Your task to perform on an android device: How big is the universe? Image 0: 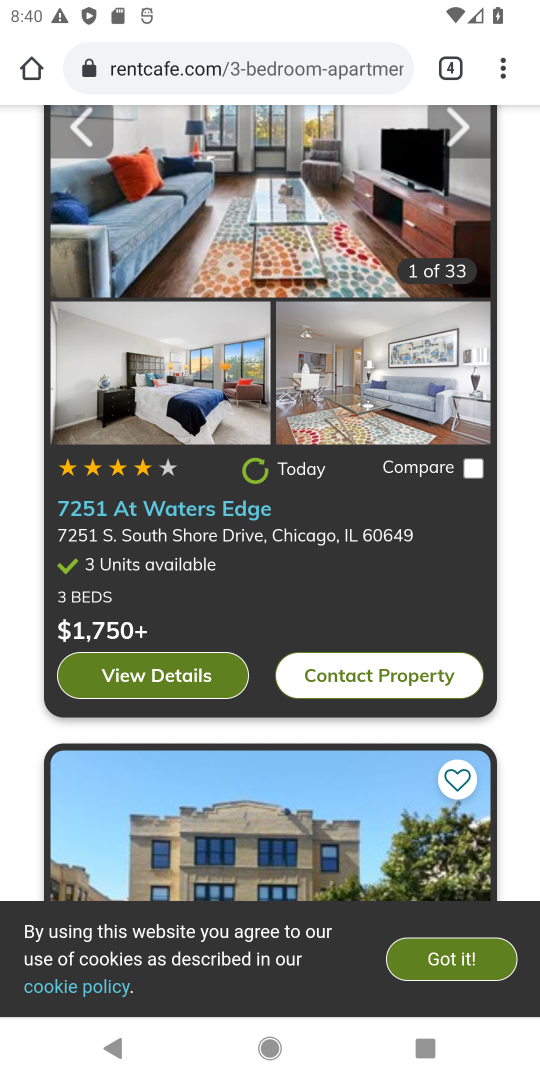
Step 0: drag from (505, 74) to (308, 148)
Your task to perform on an android device: How big is the universe? Image 1: 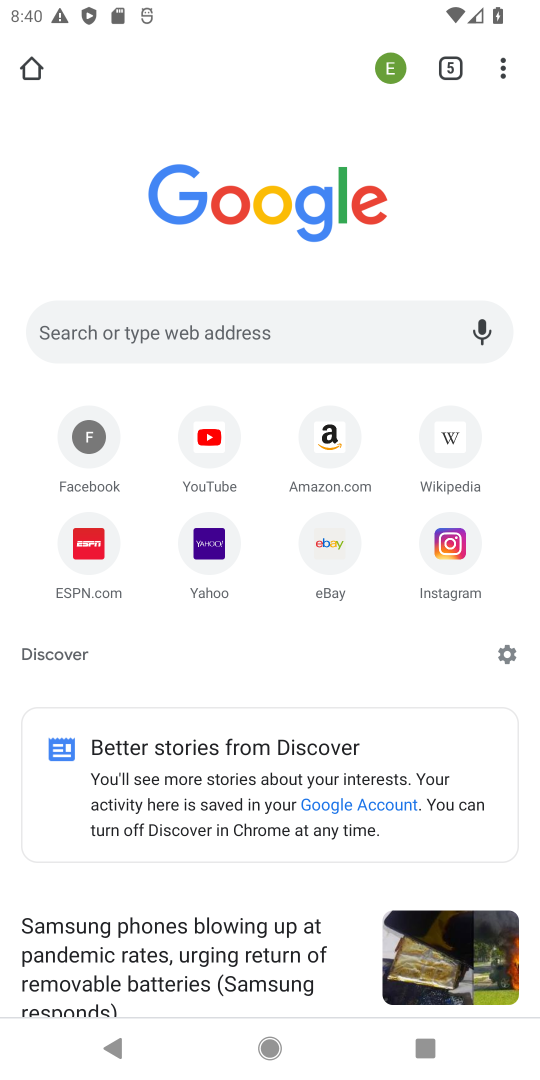
Step 1: click (299, 328)
Your task to perform on an android device: How big is the universe? Image 2: 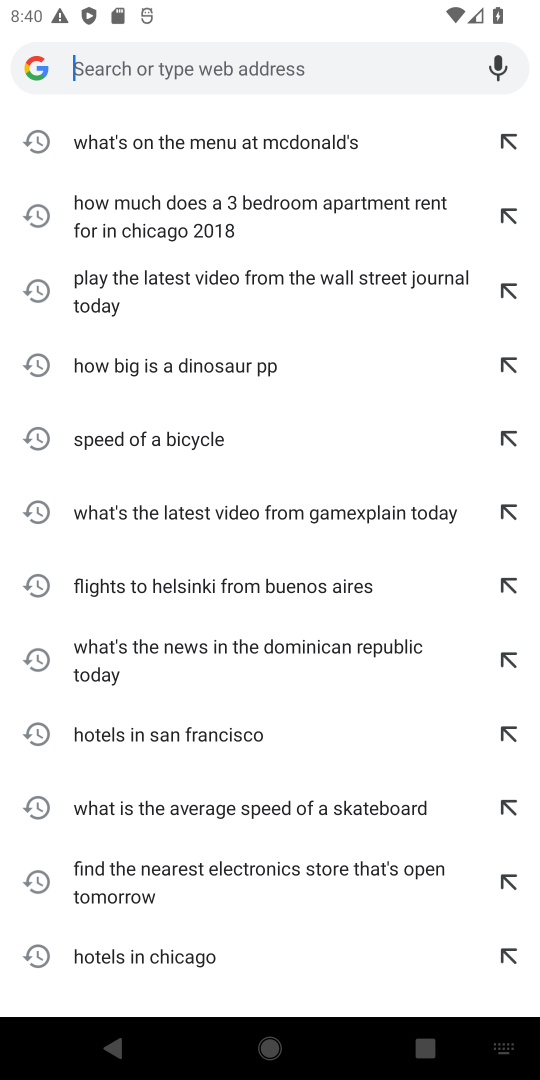
Step 2: type "How big is the universe?"
Your task to perform on an android device: How big is the universe? Image 3: 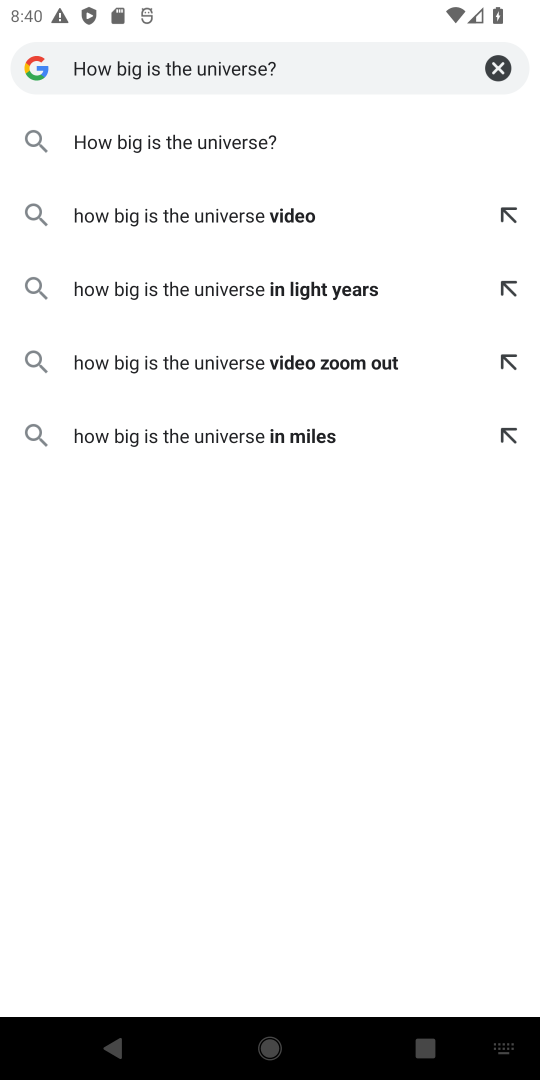
Step 3: click (199, 151)
Your task to perform on an android device: How big is the universe? Image 4: 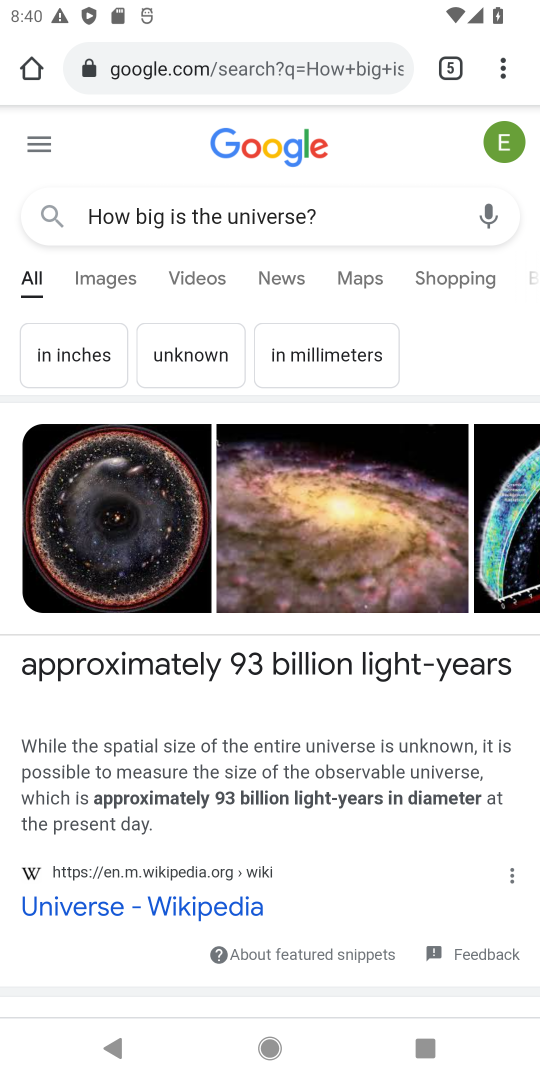
Step 4: task complete